Your task to perform on an android device: Open my contact list Image 0: 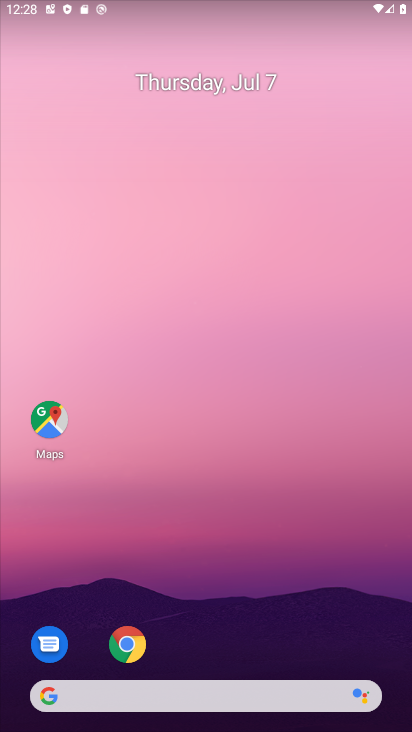
Step 0: drag from (260, 636) to (282, 135)
Your task to perform on an android device: Open my contact list Image 1: 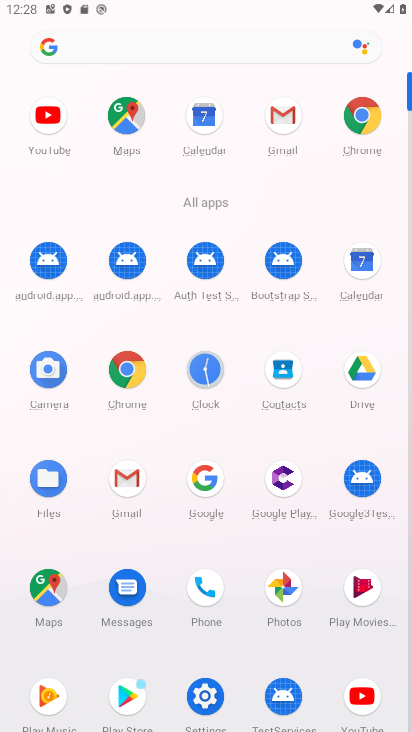
Step 1: drag from (249, 644) to (272, 153)
Your task to perform on an android device: Open my contact list Image 2: 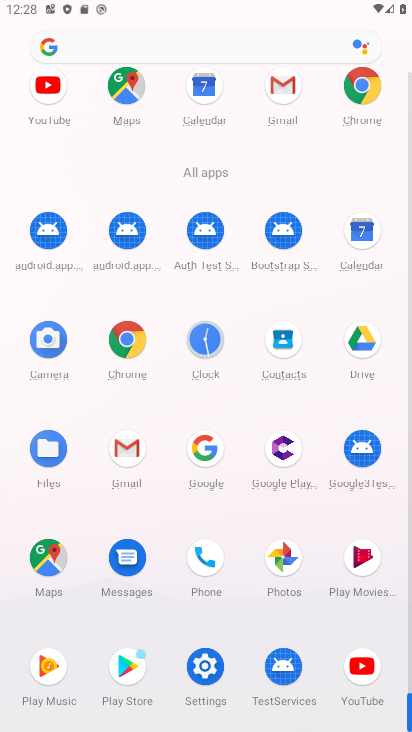
Step 2: click (285, 330)
Your task to perform on an android device: Open my contact list Image 3: 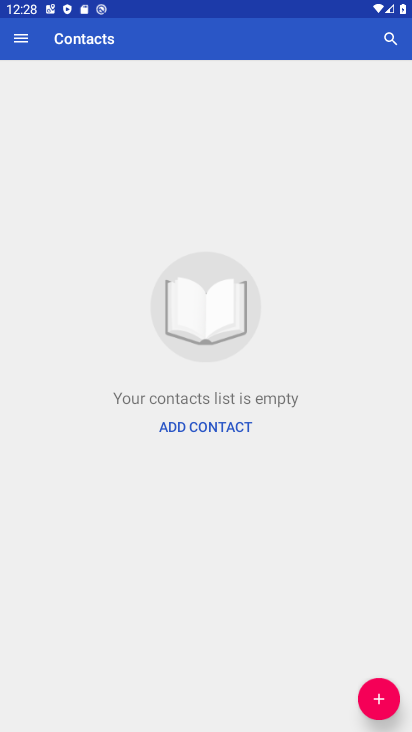
Step 3: task complete